Your task to perform on an android device: turn on sleep mode Image 0: 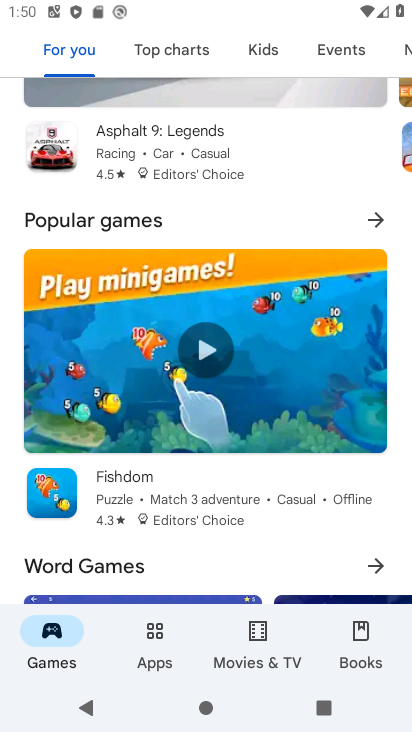
Step 0: press home button
Your task to perform on an android device: turn on sleep mode Image 1: 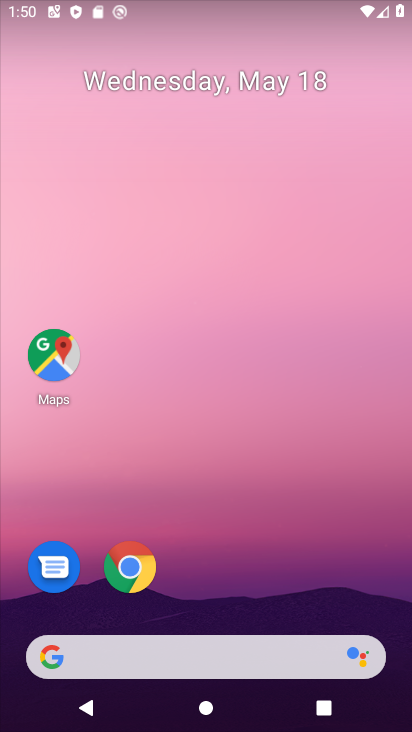
Step 1: drag from (311, 566) to (326, 109)
Your task to perform on an android device: turn on sleep mode Image 2: 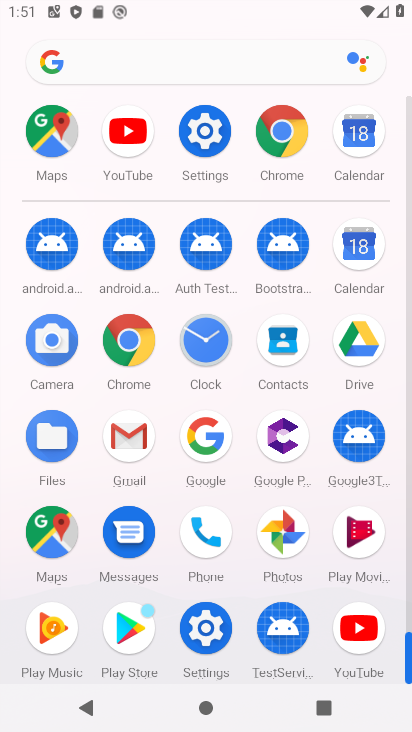
Step 2: click (216, 136)
Your task to perform on an android device: turn on sleep mode Image 3: 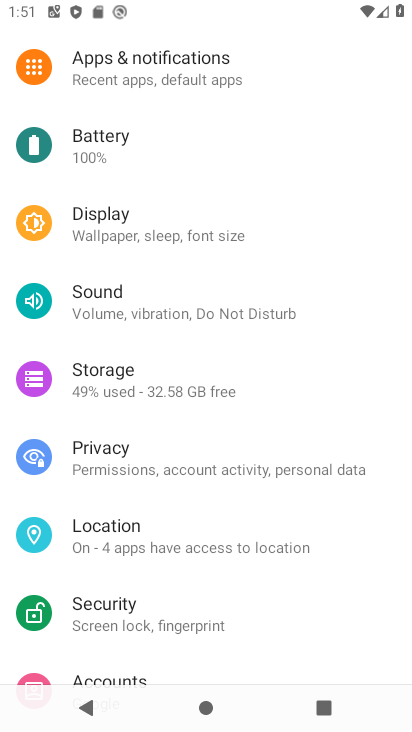
Step 3: click (185, 211)
Your task to perform on an android device: turn on sleep mode Image 4: 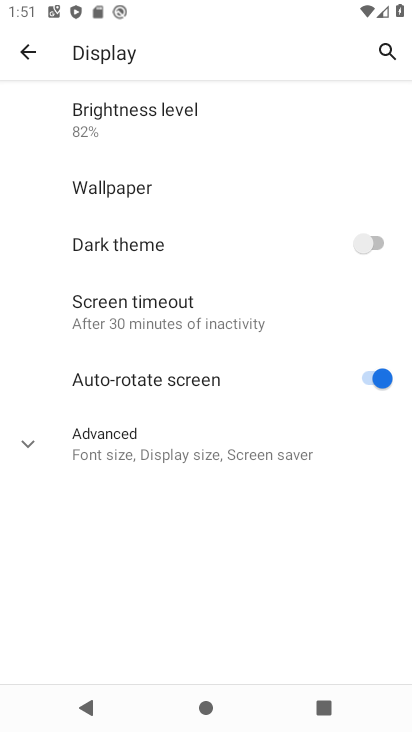
Step 4: click (145, 307)
Your task to perform on an android device: turn on sleep mode Image 5: 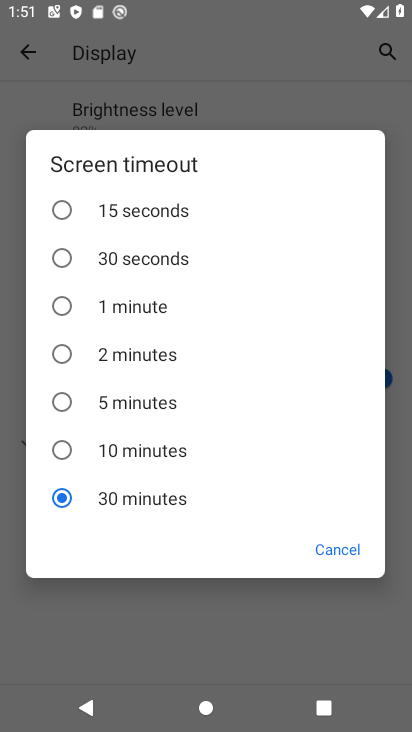
Step 5: task complete